Your task to perform on an android device: check data usage Image 0: 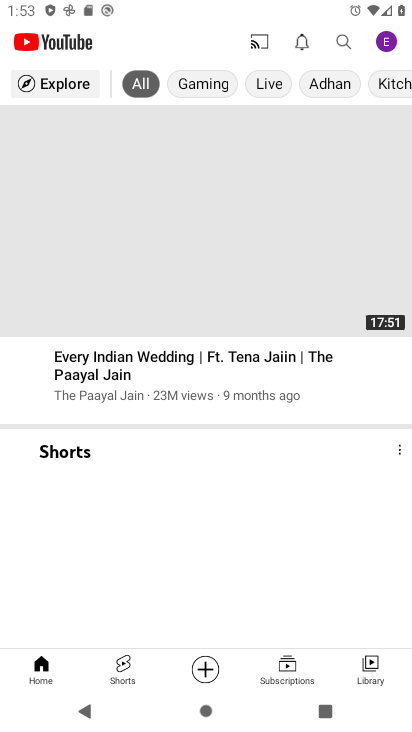
Step 0: press home button
Your task to perform on an android device: check data usage Image 1: 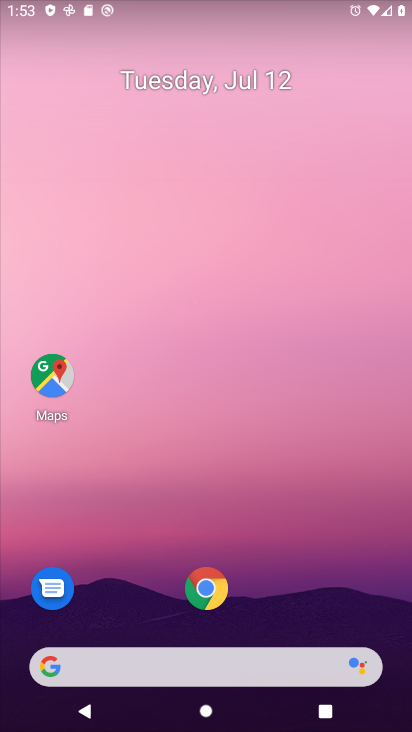
Step 1: drag from (169, 658) to (409, 86)
Your task to perform on an android device: check data usage Image 2: 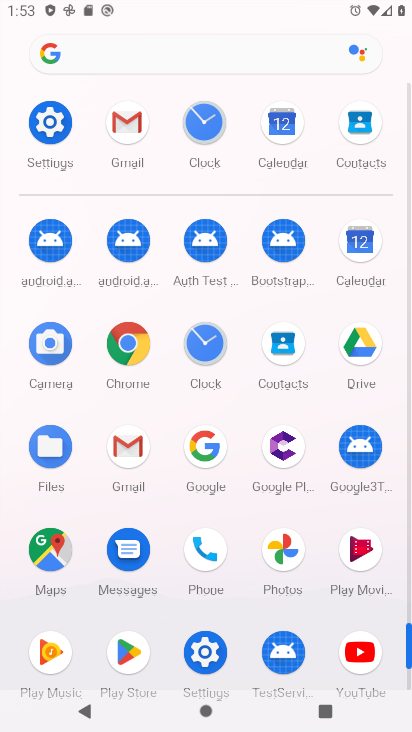
Step 2: click (41, 118)
Your task to perform on an android device: check data usage Image 3: 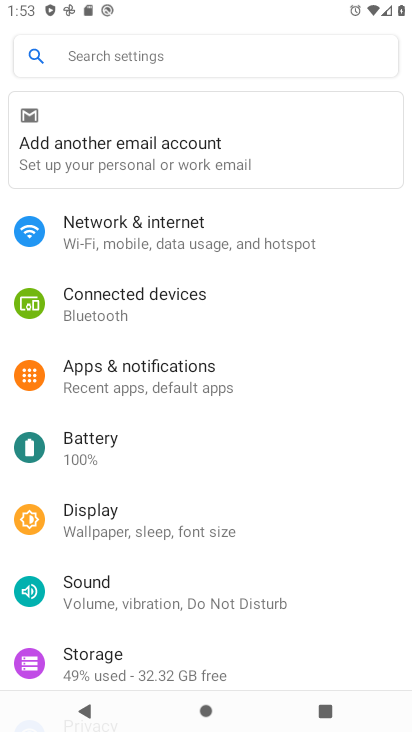
Step 3: click (161, 231)
Your task to perform on an android device: check data usage Image 4: 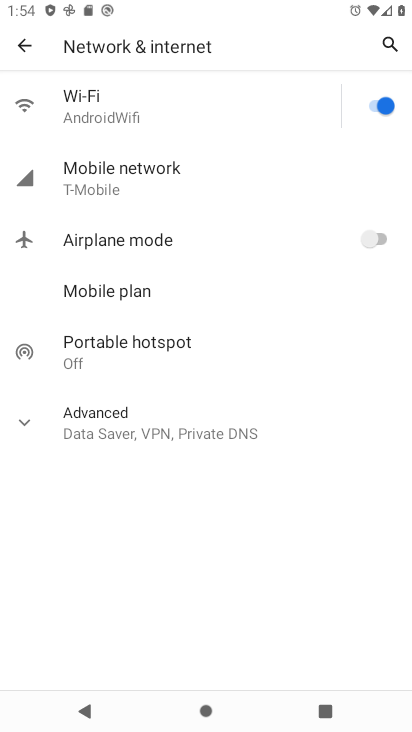
Step 4: click (114, 110)
Your task to perform on an android device: check data usage Image 5: 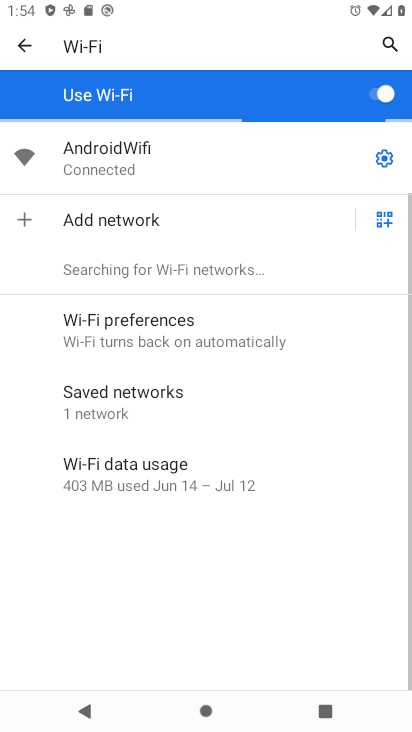
Step 5: click (171, 463)
Your task to perform on an android device: check data usage Image 6: 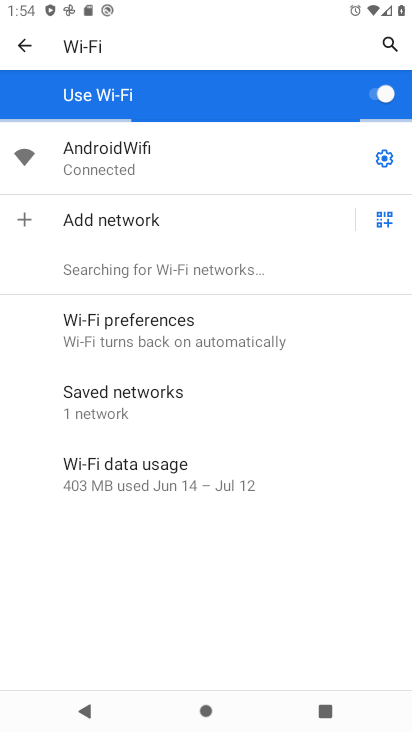
Step 6: click (178, 468)
Your task to perform on an android device: check data usage Image 7: 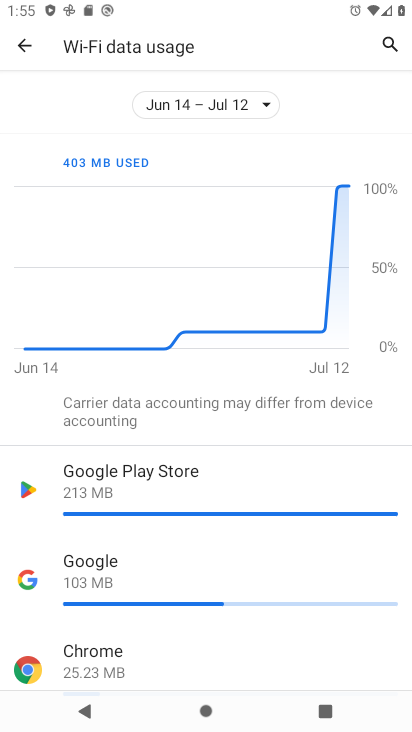
Step 7: task complete